Your task to perform on an android device: Open calendar and show me the first week of next month Image 0: 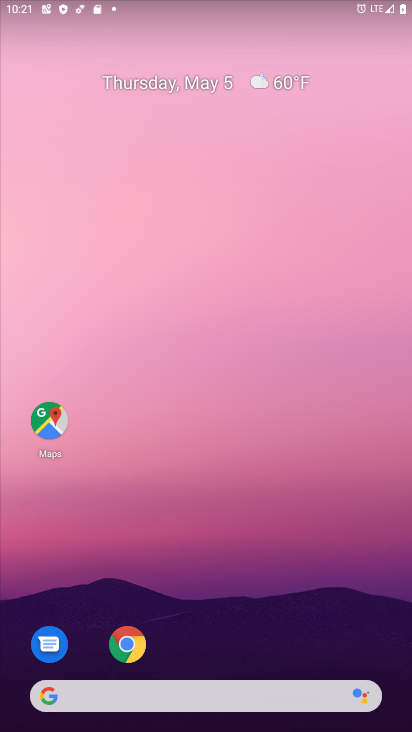
Step 0: drag from (288, 598) to (257, 230)
Your task to perform on an android device: Open calendar and show me the first week of next month Image 1: 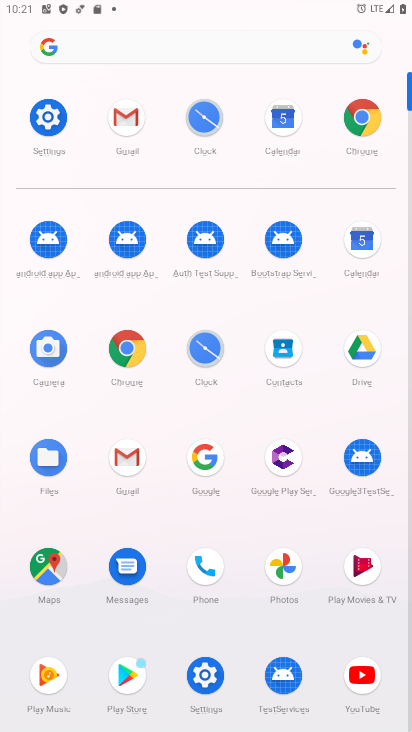
Step 1: click (362, 243)
Your task to perform on an android device: Open calendar and show me the first week of next month Image 2: 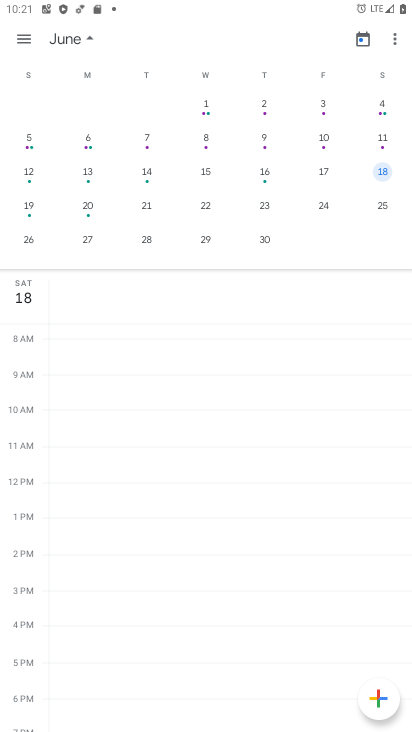
Step 2: click (214, 108)
Your task to perform on an android device: Open calendar and show me the first week of next month Image 3: 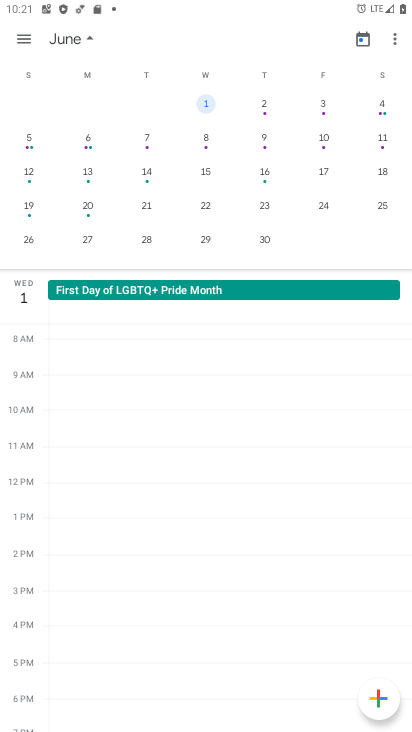
Step 3: click (263, 115)
Your task to perform on an android device: Open calendar and show me the first week of next month Image 4: 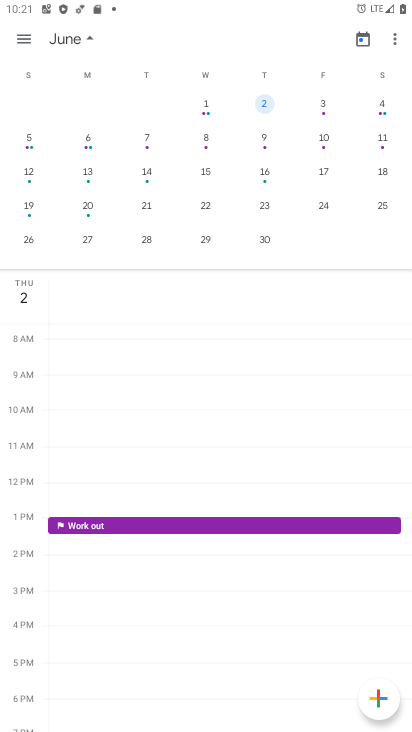
Step 4: click (323, 107)
Your task to perform on an android device: Open calendar and show me the first week of next month Image 5: 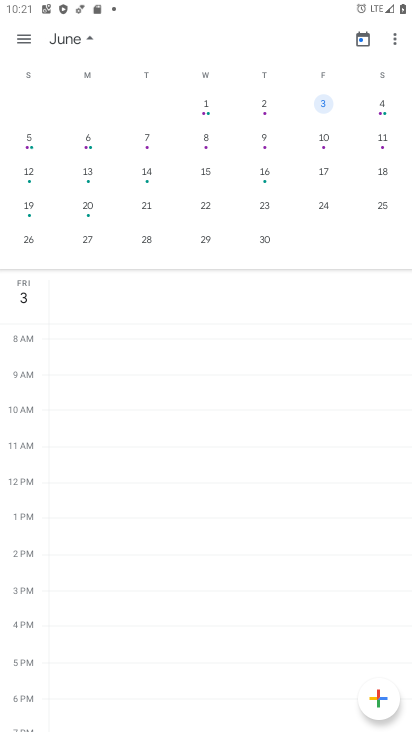
Step 5: click (383, 112)
Your task to perform on an android device: Open calendar and show me the first week of next month Image 6: 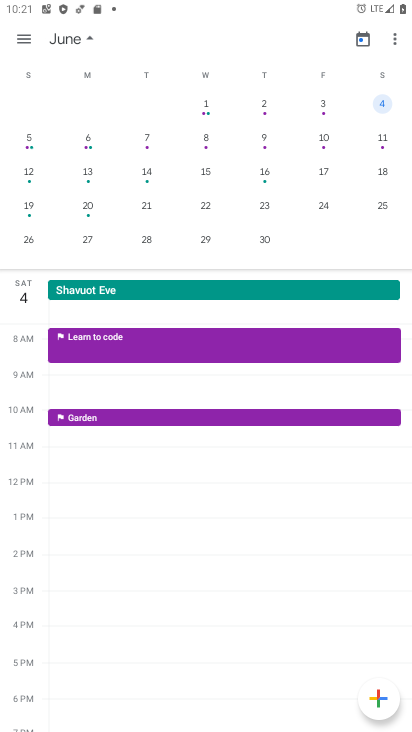
Step 6: task complete